Your task to perform on an android device: Open ESPN.com Image 0: 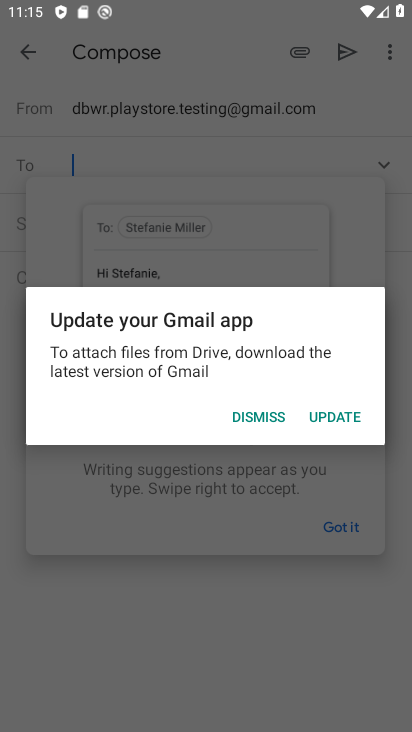
Step 0: press home button
Your task to perform on an android device: Open ESPN.com Image 1: 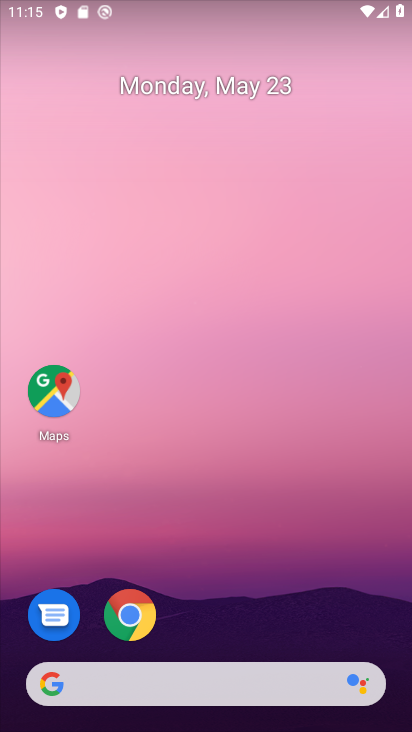
Step 1: click (48, 386)
Your task to perform on an android device: Open ESPN.com Image 2: 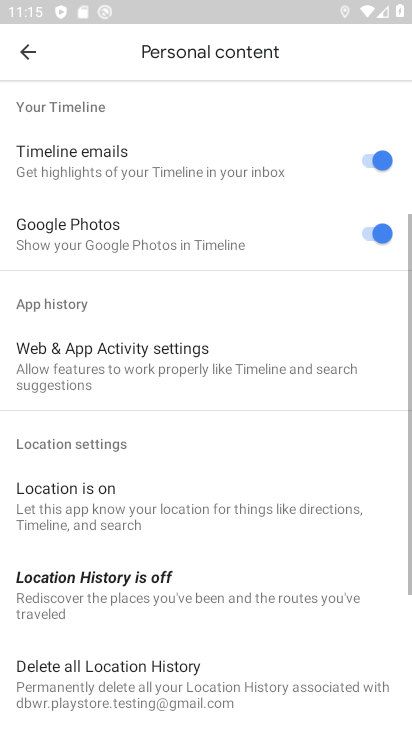
Step 2: press home button
Your task to perform on an android device: Open ESPN.com Image 3: 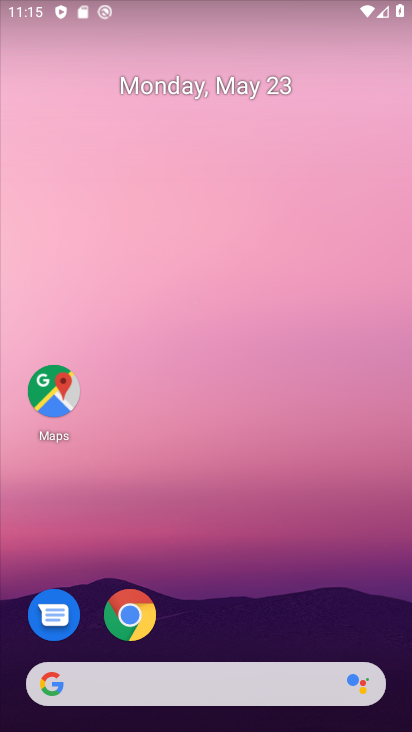
Step 3: click (140, 605)
Your task to perform on an android device: Open ESPN.com Image 4: 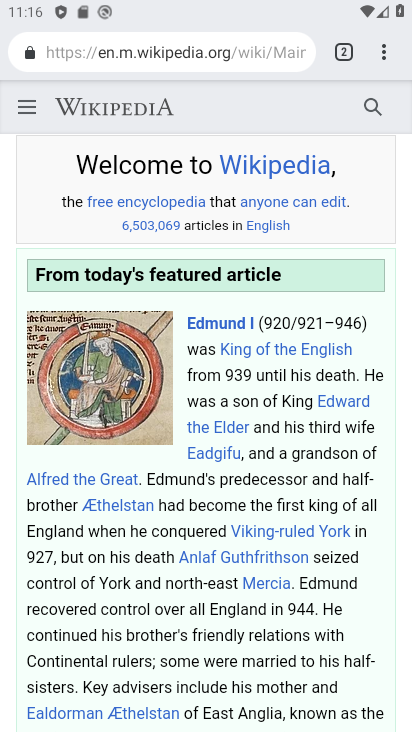
Step 4: click (352, 47)
Your task to perform on an android device: Open ESPN.com Image 5: 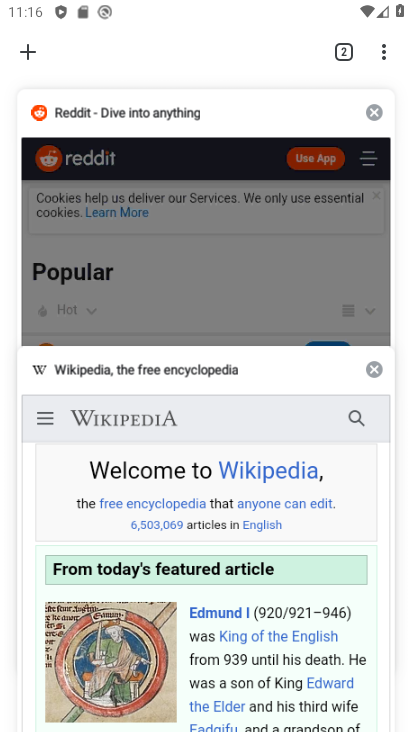
Step 5: click (32, 55)
Your task to perform on an android device: Open ESPN.com Image 6: 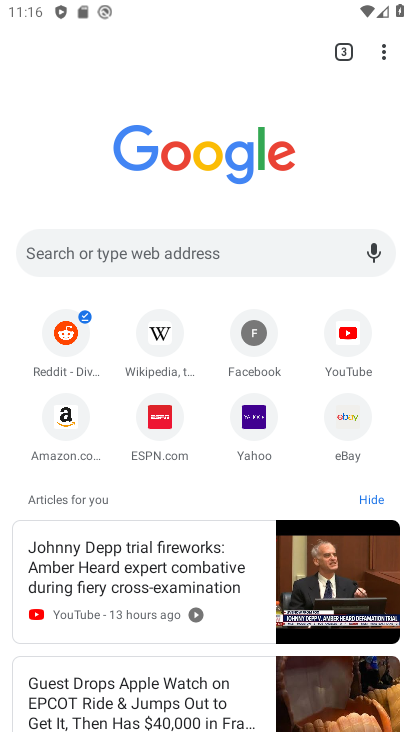
Step 6: click (167, 425)
Your task to perform on an android device: Open ESPN.com Image 7: 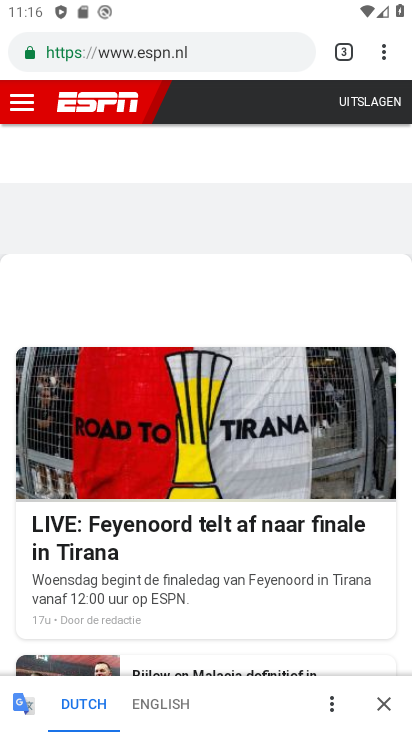
Step 7: task complete